Your task to perform on an android device: Check the news Image 0: 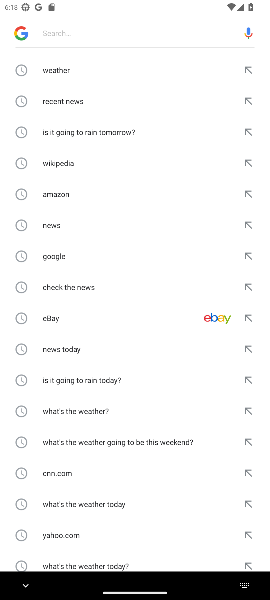
Step 0: press home button
Your task to perform on an android device: Check the news Image 1: 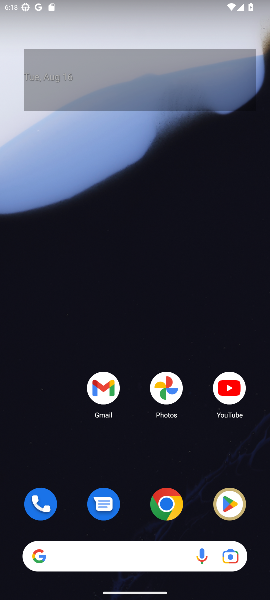
Step 1: click (72, 555)
Your task to perform on an android device: Check the news Image 2: 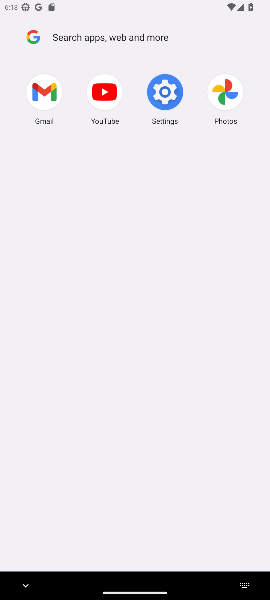
Step 2: type "Check the news"
Your task to perform on an android device: Check the news Image 3: 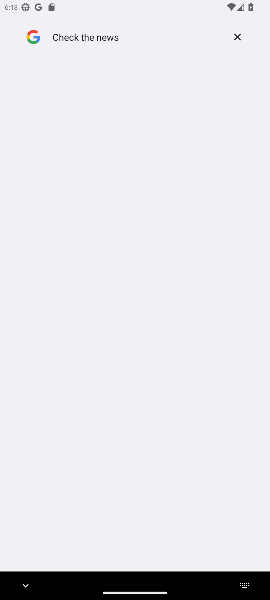
Step 3: type ""
Your task to perform on an android device: Check the news Image 4: 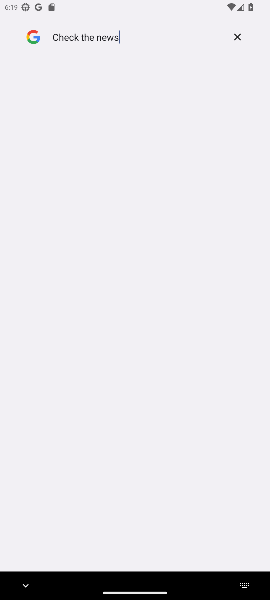
Step 4: task complete